Your task to perform on an android device: change your default location settings in chrome Image 0: 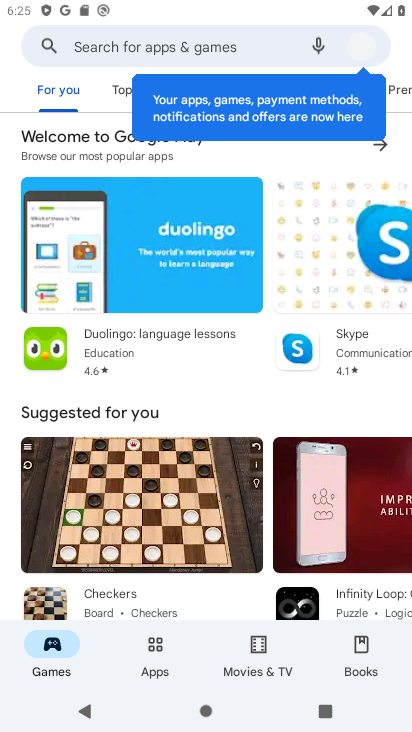
Step 0: press home button
Your task to perform on an android device: change your default location settings in chrome Image 1: 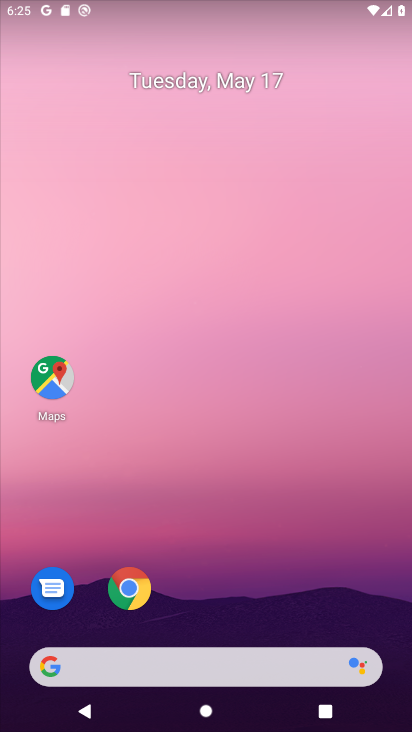
Step 1: drag from (387, 646) to (316, 19)
Your task to perform on an android device: change your default location settings in chrome Image 2: 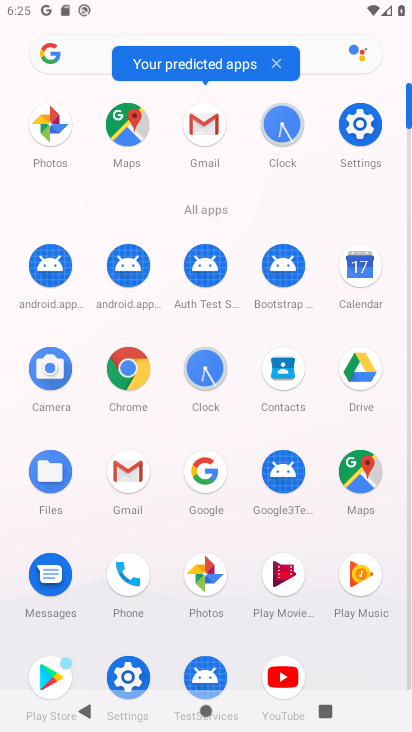
Step 2: click (135, 380)
Your task to perform on an android device: change your default location settings in chrome Image 3: 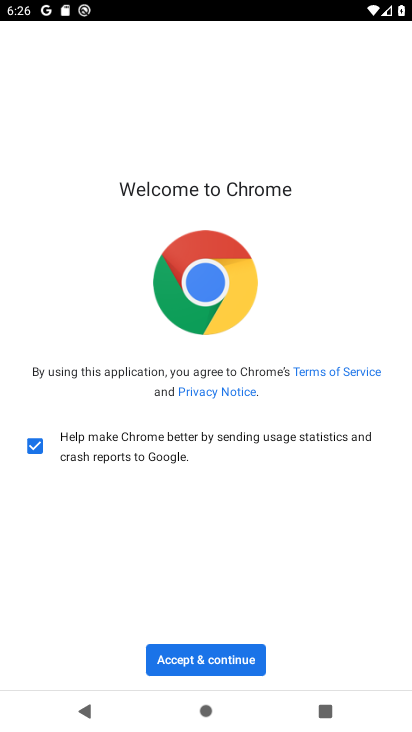
Step 3: click (185, 663)
Your task to perform on an android device: change your default location settings in chrome Image 4: 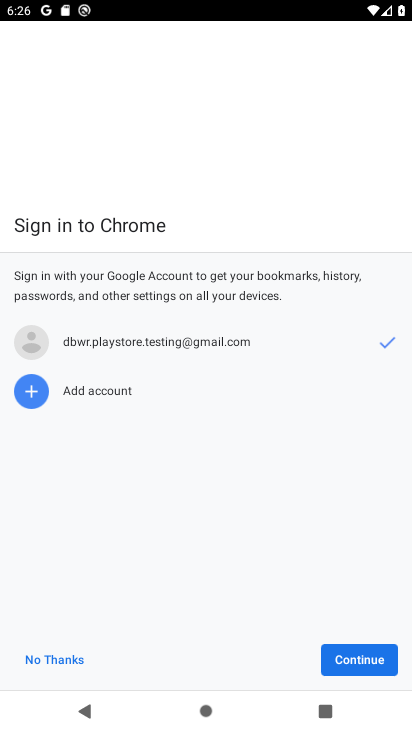
Step 4: click (371, 649)
Your task to perform on an android device: change your default location settings in chrome Image 5: 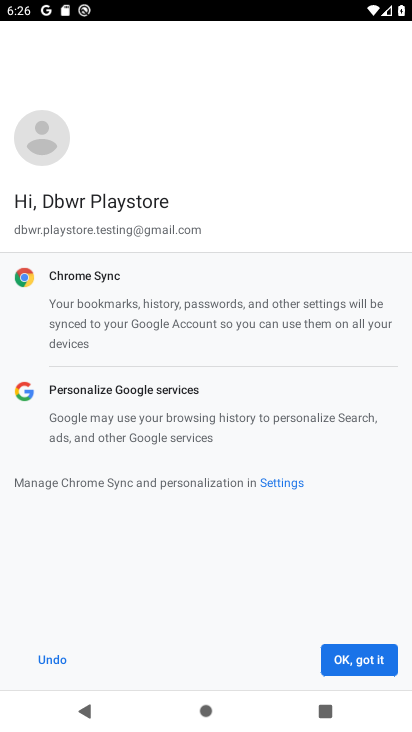
Step 5: click (352, 656)
Your task to perform on an android device: change your default location settings in chrome Image 6: 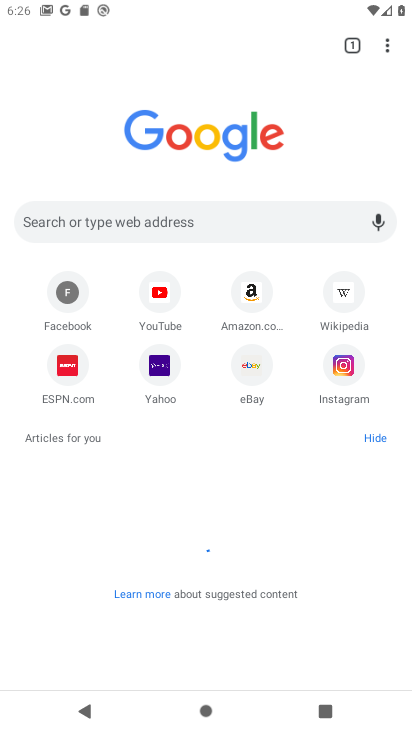
Step 6: click (383, 40)
Your task to perform on an android device: change your default location settings in chrome Image 7: 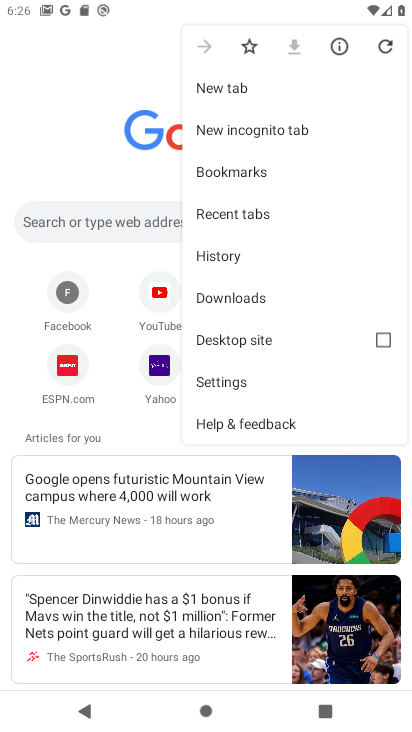
Step 7: click (241, 377)
Your task to perform on an android device: change your default location settings in chrome Image 8: 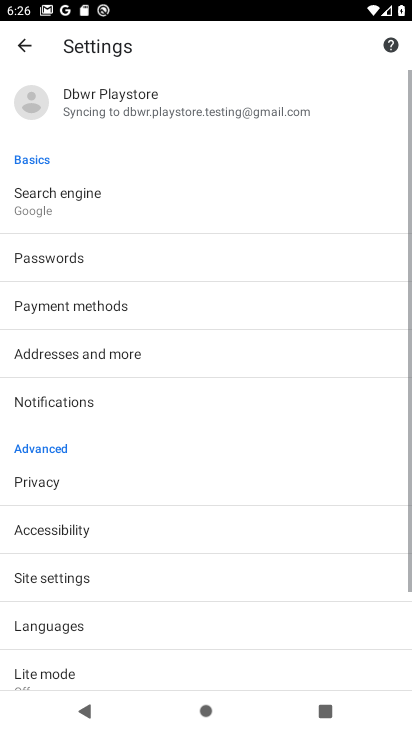
Step 8: click (76, 221)
Your task to perform on an android device: change your default location settings in chrome Image 9: 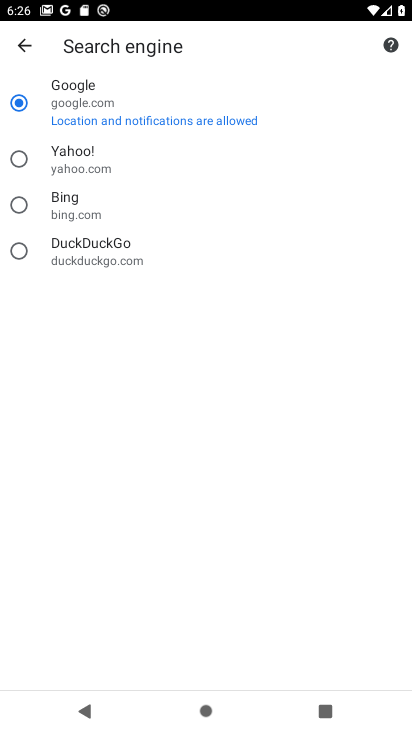
Step 9: click (103, 210)
Your task to perform on an android device: change your default location settings in chrome Image 10: 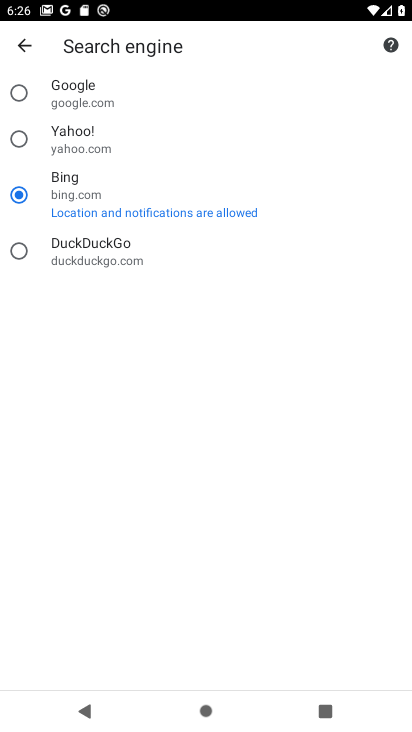
Step 10: task complete